Your task to perform on an android device: Show me recent news Image 0: 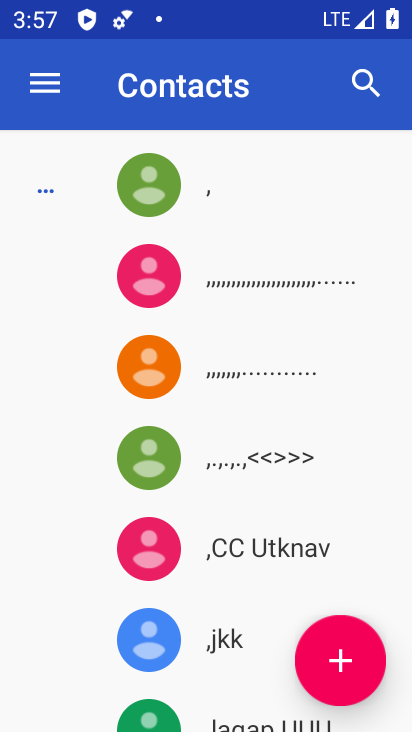
Step 0: press home button
Your task to perform on an android device: Show me recent news Image 1: 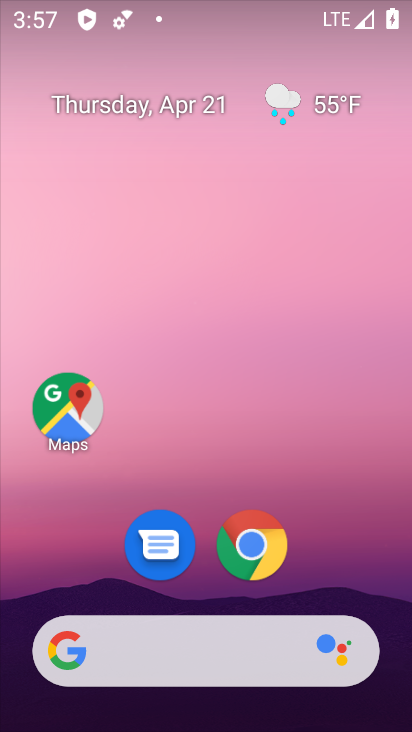
Step 1: task complete